Your task to perform on an android device: turn on translation in the chrome app Image 0: 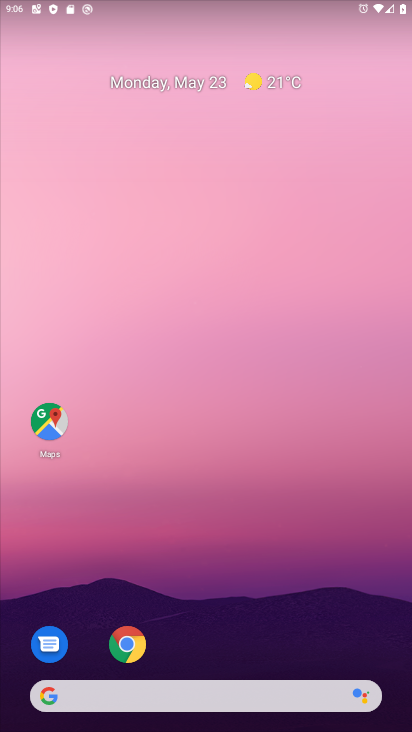
Step 0: click (131, 644)
Your task to perform on an android device: turn on translation in the chrome app Image 1: 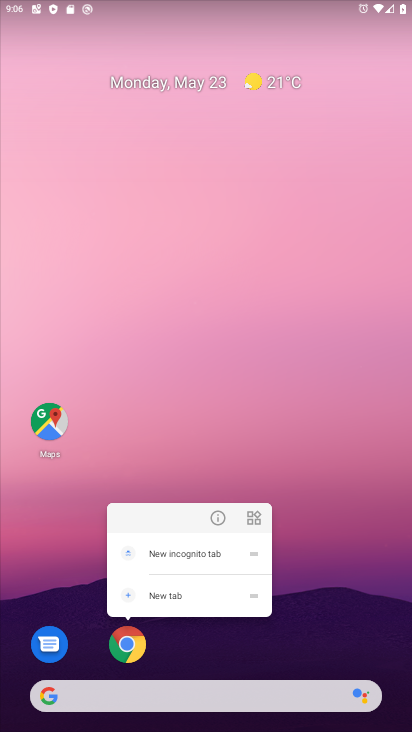
Step 1: click (131, 644)
Your task to perform on an android device: turn on translation in the chrome app Image 2: 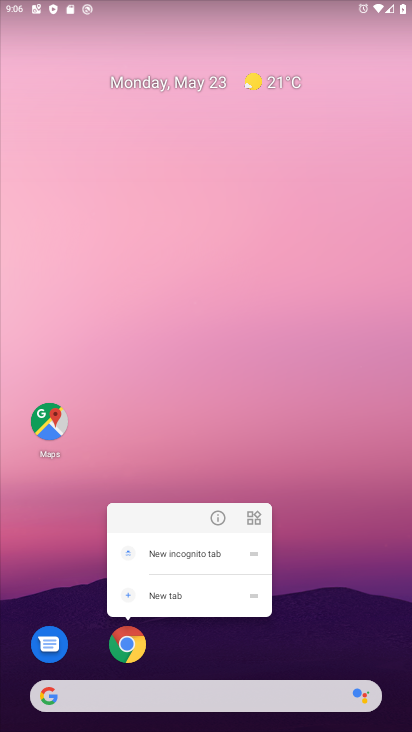
Step 2: click (131, 644)
Your task to perform on an android device: turn on translation in the chrome app Image 3: 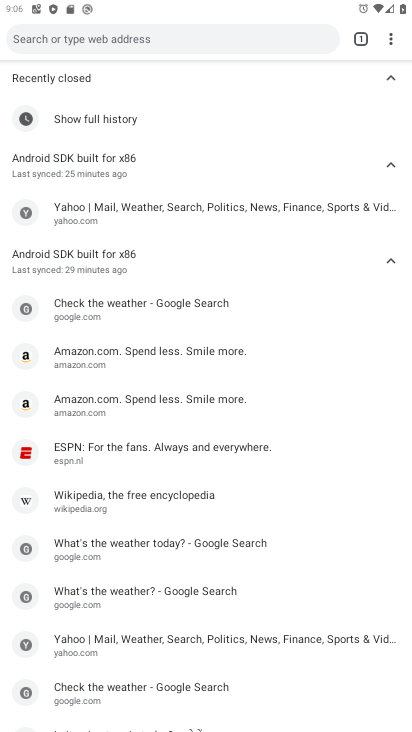
Step 3: click (386, 36)
Your task to perform on an android device: turn on translation in the chrome app Image 4: 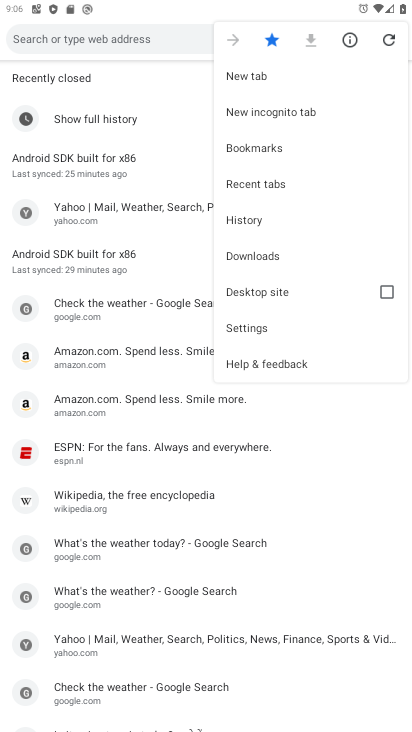
Step 4: click (268, 326)
Your task to perform on an android device: turn on translation in the chrome app Image 5: 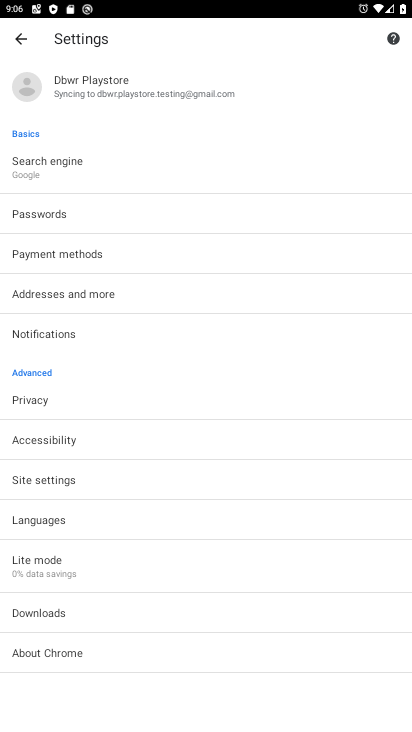
Step 5: click (38, 524)
Your task to perform on an android device: turn on translation in the chrome app Image 6: 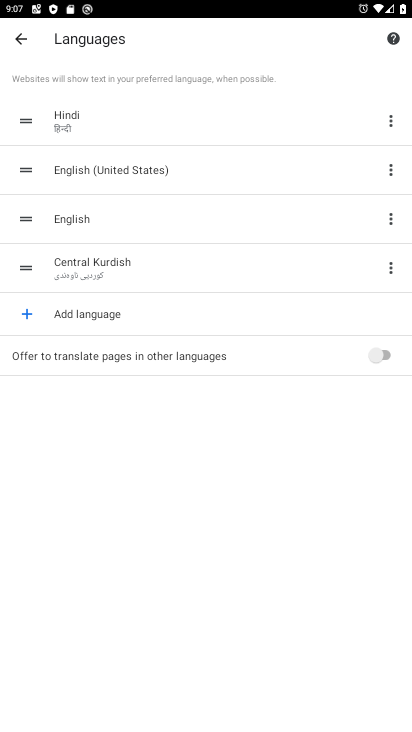
Step 6: click (388, 354)
Your task to perform on an android device: turn on translation in the chrome app Image 7: 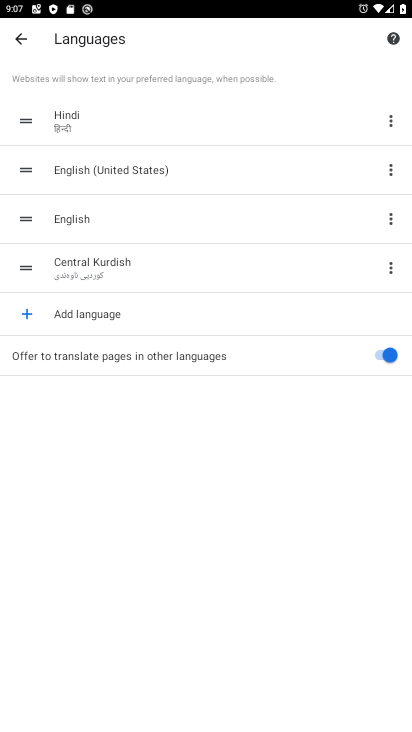
Step 7: task complete